Your task to perform on an android device: delete the emails in spam in the gmail app Image 0: 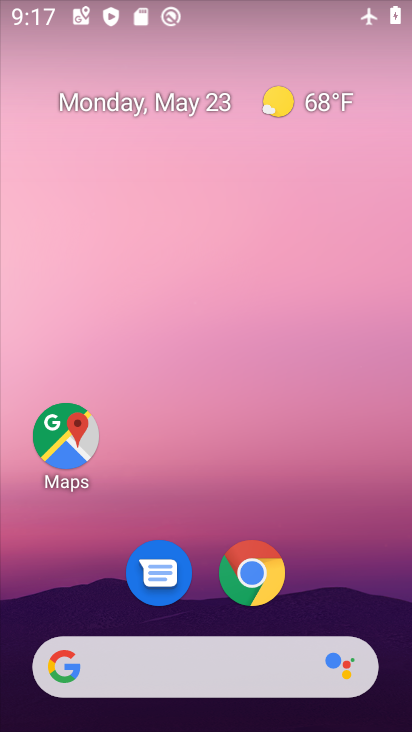
Step 0: drag from (298, 656) to (373, 112)
Your task to perform on an android device: delete the emails in spam in the gmail app Image 1: 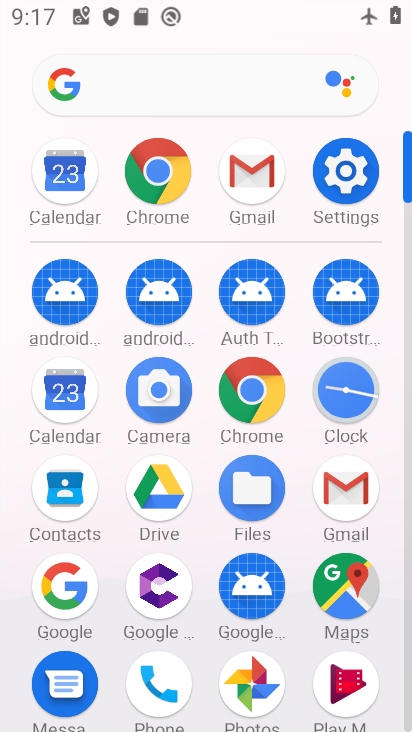
Step 1: click (361, 514)
Your task to perform on an android device: delete the emails in spam in the gmail app Image 2: 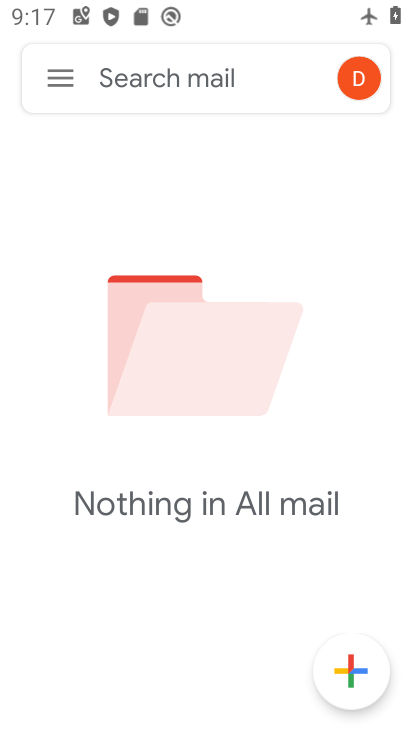
Step 2: click (64, 81)
Your task to perform on an android device: delete the emails in spam in the gmail app Image 3: 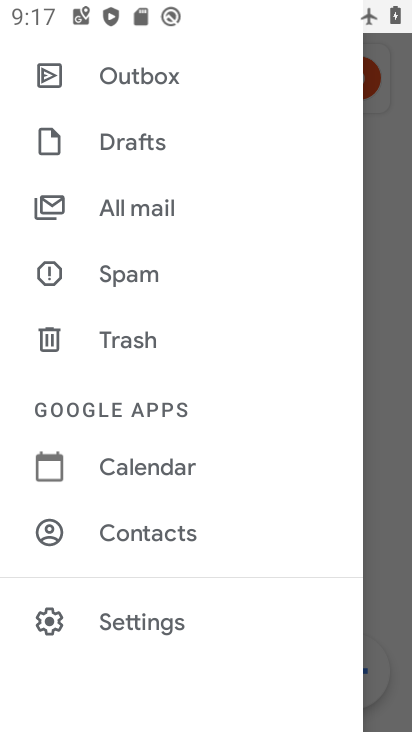
Step 3: drag from (167, 254) to (177, 607)
Your task to perform on an android device: delete the emails in spam in the gmail app Image 4: 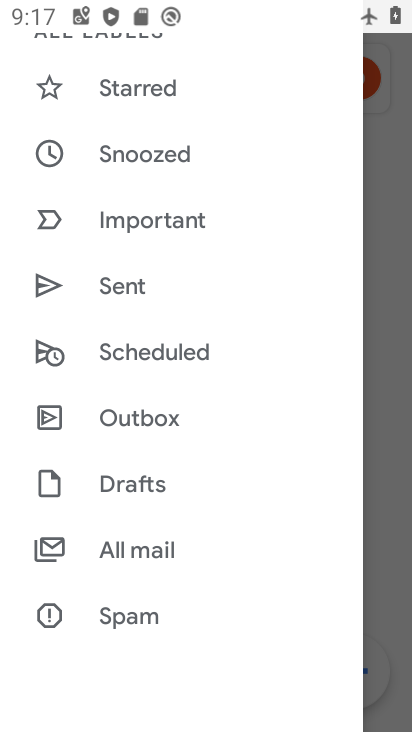
Step 4: click (132, 616)
Your task to perform on an android device: delete the emails in spam in the gmail app Image 5: 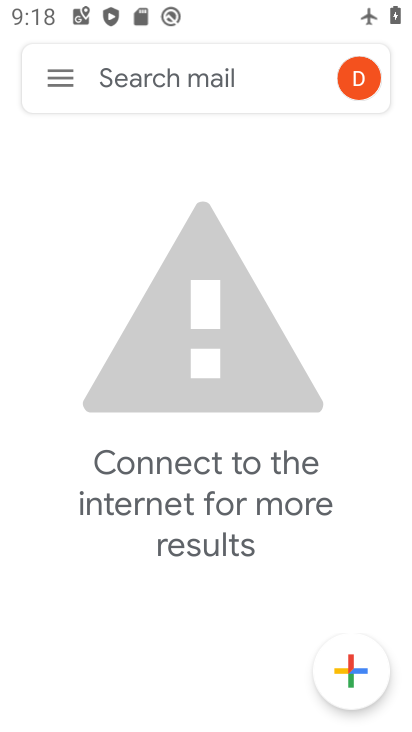
Step 5: task complete